Your task to perform on an android device: Toggle the flashlight Image 0: 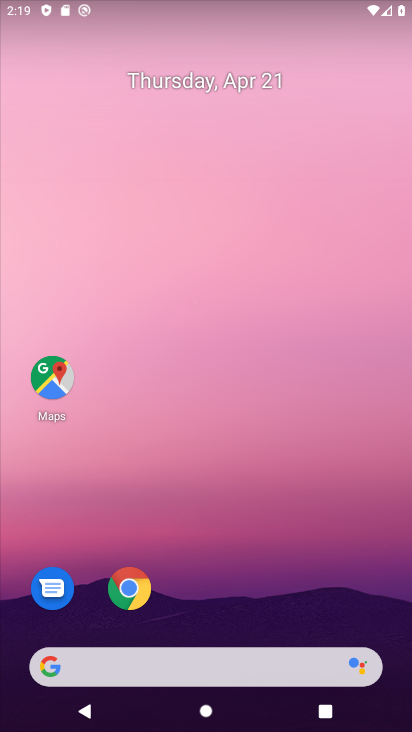
Step 0: drag from (136, 42) to (148, 314)
Your task to perform on an android device: Toggle the flashlight Image 1: 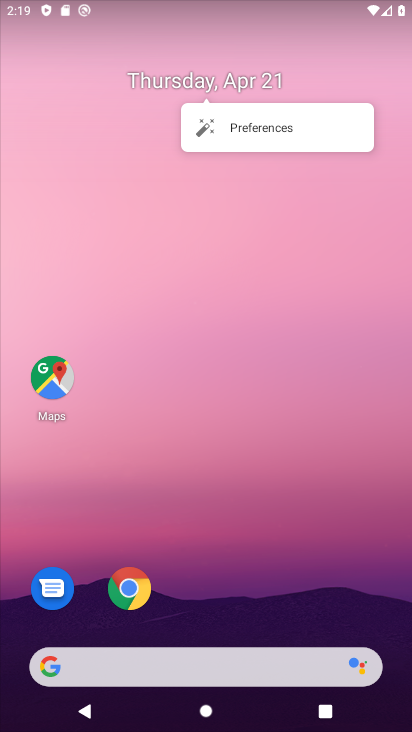
Step 1: drag from (183, 4) to (176, 438)
Your task to perform on an android device: Toggle the flashlight Image 2: 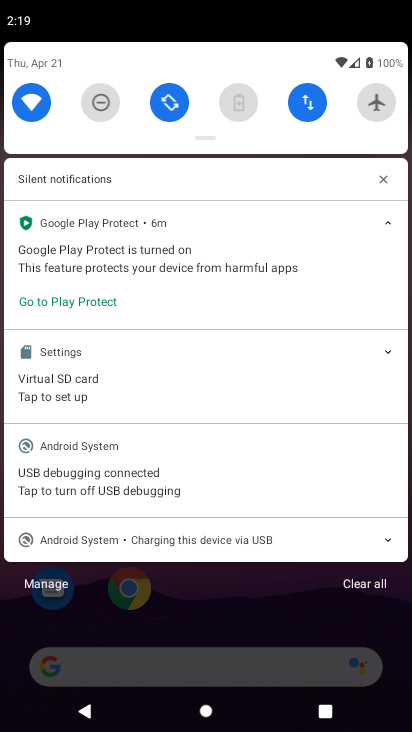
Step 2: drag from (197, 13) to (201, 435)
Your task to perform on an android device: Toggle the flashlight Image 3: 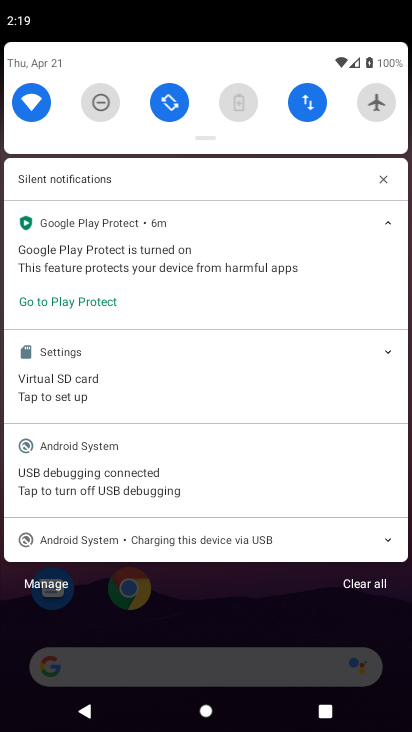
Step 3: drag from (217, 77) to (230, 365)
Your task to perform on an android device: Toggle the flashlight Image 4: 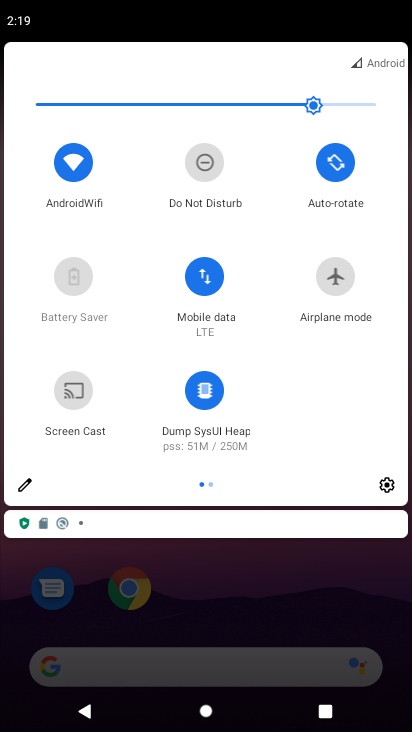
Step 4: drag from (346, 383) to (8, 337)
Your task to perform on an android device: Toggle the flashlight Image 5: 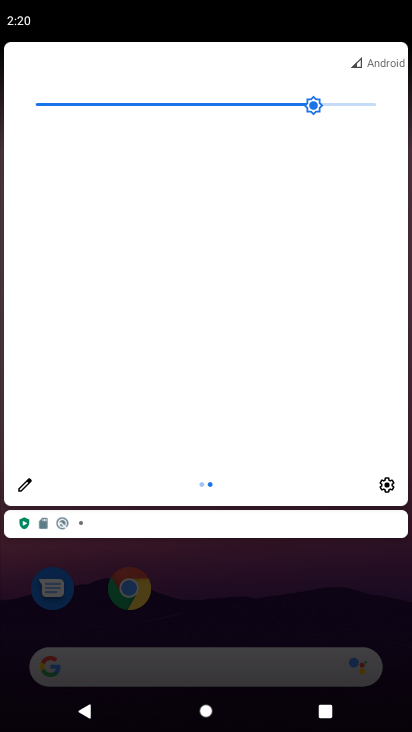
Step 5: drag from (327, 325) to (166, 312)
Your task to perform on an android device: Toggle the flashlight Image 6: 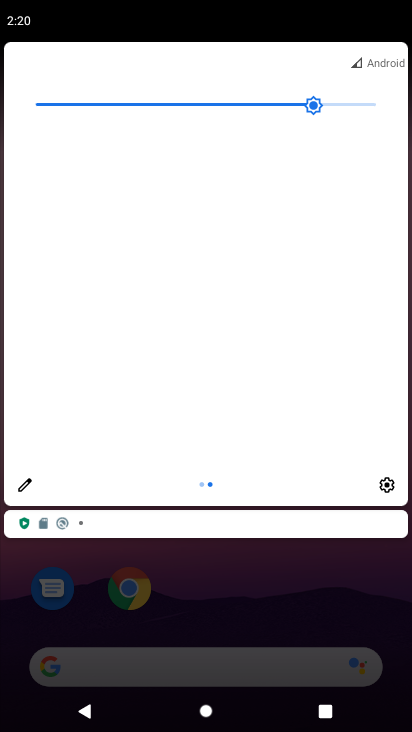
Step 6: click (50, 247)
Your task to perform on an android device: Toggle the flashlight Image 7: 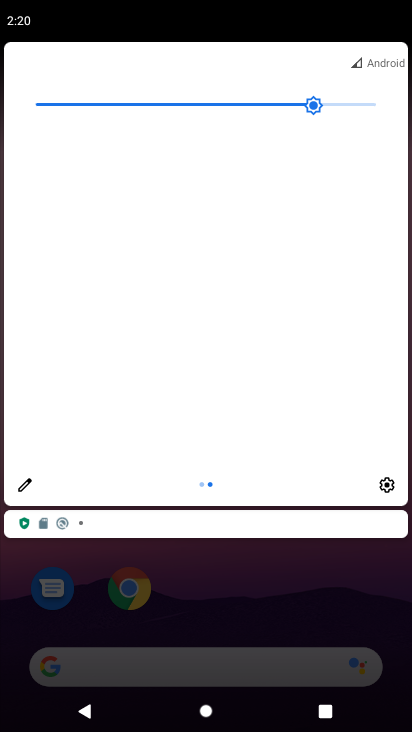
Step 7: task complete